Your task to perform on an android device: turn on bluetooth scan Image 0: 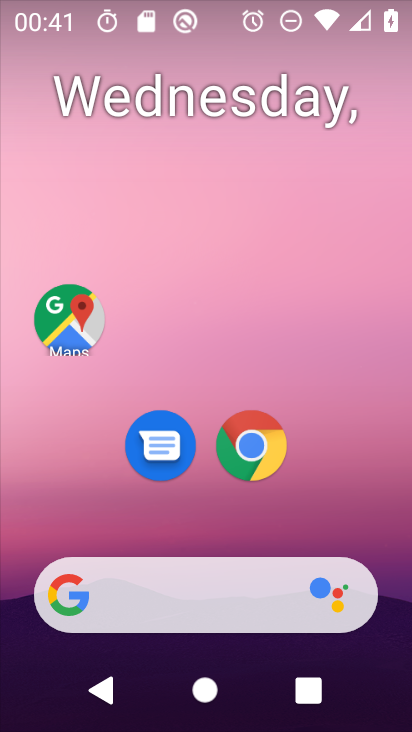
Step 0: drag from (274, 520) to (297, 0)
Your task to perform on an android device: turn on bluetooth scan Image 1: 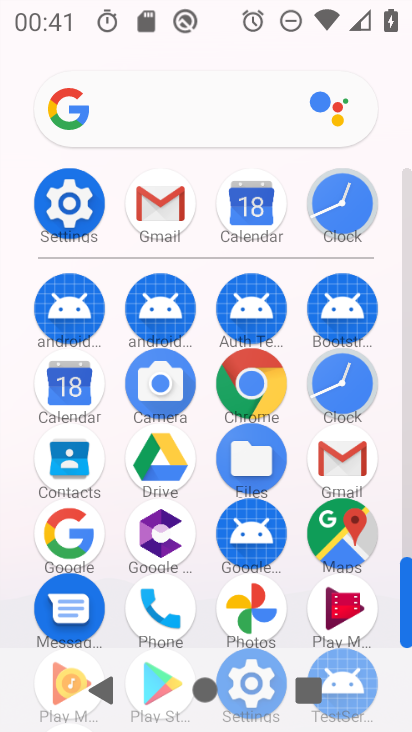
Step 1: click (69, 198)
Your task to perform on an android device: turn on bluetooth scan Image 2: 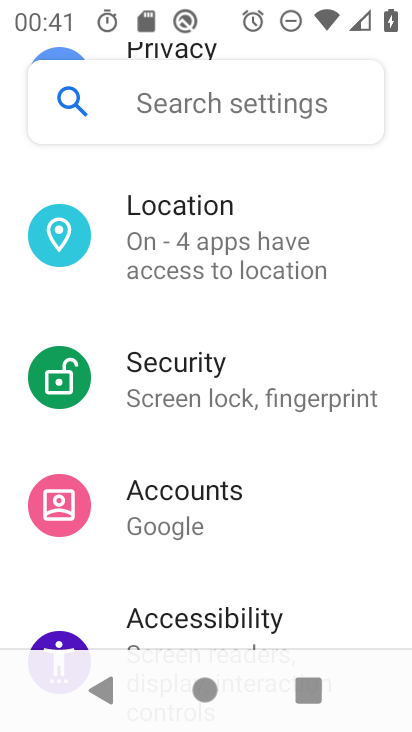
Step 2: click (227, 200)
Your task to perform on an android device: turn on bluetooth scan Image 3: 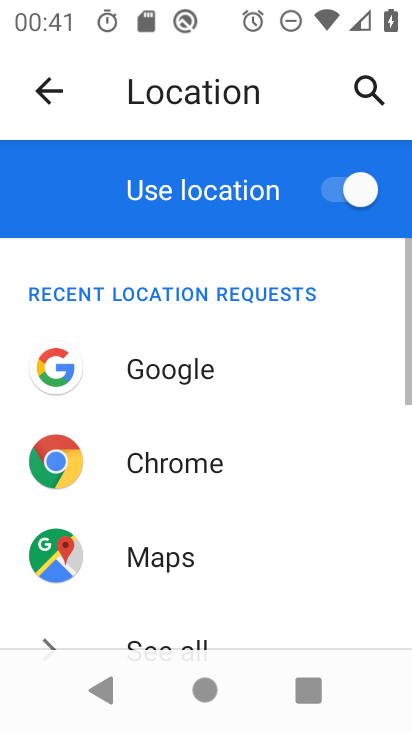
Step 3: drag from (271, 460) to (268, 41)
Your task to perform on an android device: turn on bluetooth scan Image 4: 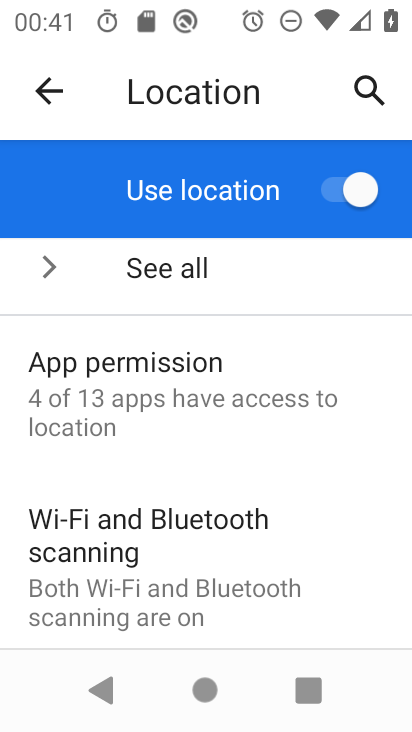
Step 4: click (231, 520)
Your task to perform on an android device: turn on bluetooth scan Image 5: 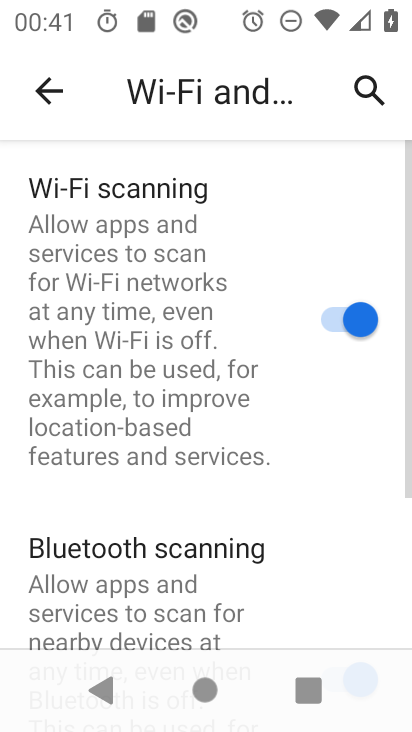
Step 5: task complete